Your task to perform on an android device: Go to sound settings Image 0: 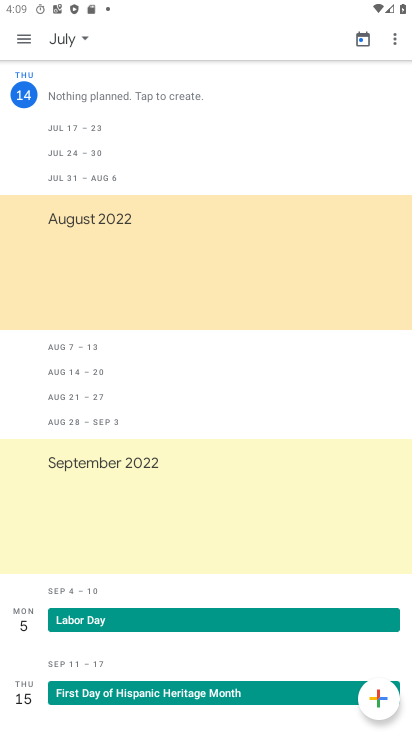
Step 0: press back button
Your task to perform on an android device: Go to sound settings Image 1: 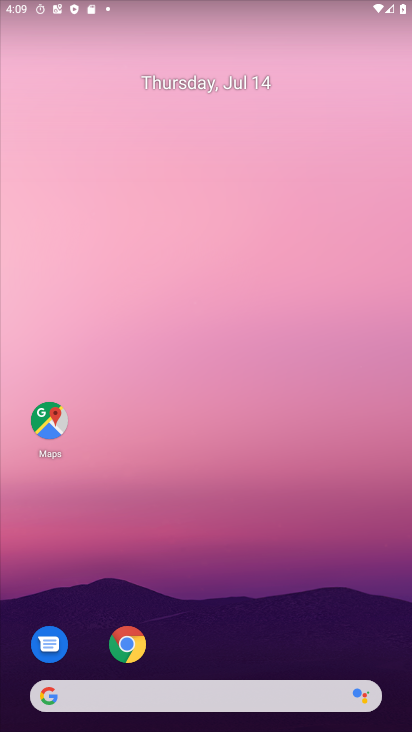
Step 1: drag from (209, 648) to (259, 0)
Your task to perform on an android device: Go to sound settings Image 2: 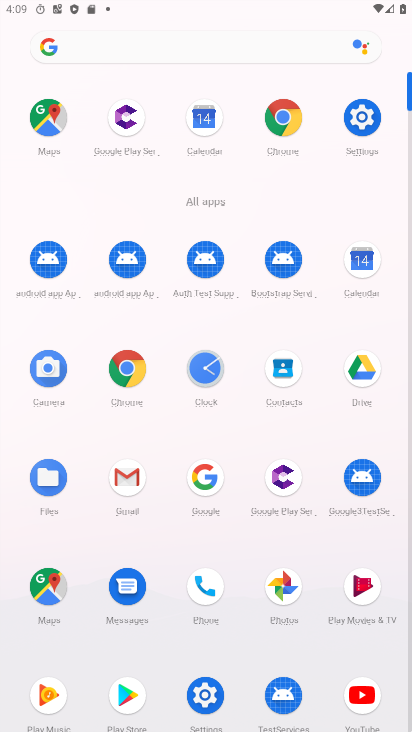
Step 2: click (380, 119)
Your task to perform on an android device: Go to sound settings Image 3: 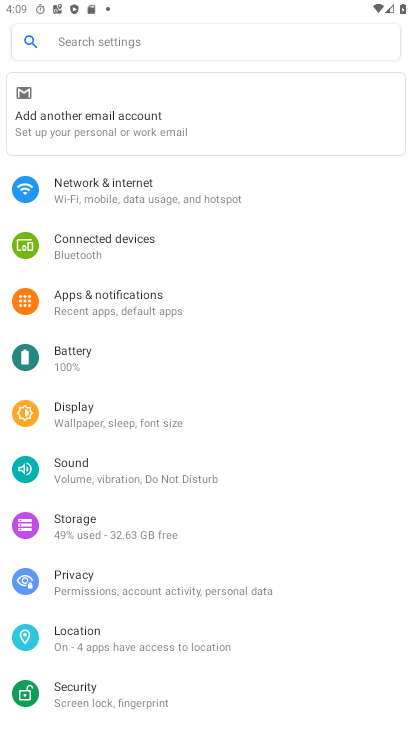
Step 3: click (134, 469)
Your task to perform on an android device: Go to sound settings Image 4: 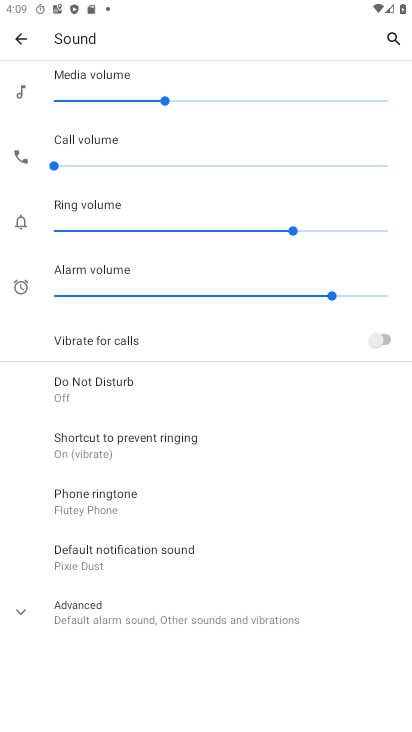
Step 4: task complete